Your task to perform on an android device: change keyboard looks Image 0: 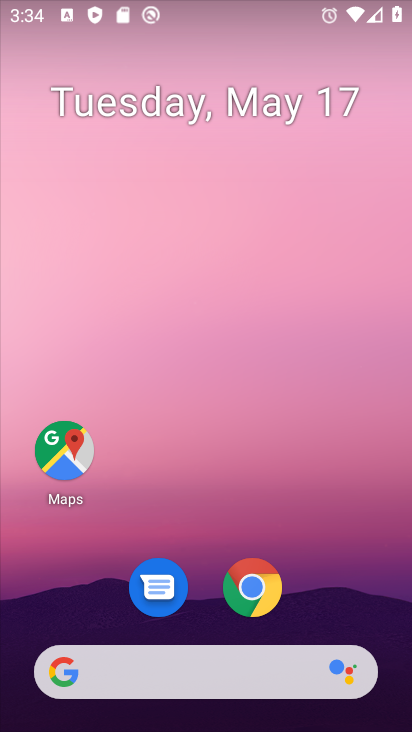
Step 0: drag from (308, 410) to (400, 197)
Your task to perform on an android device: change keyboard looks Image 1: 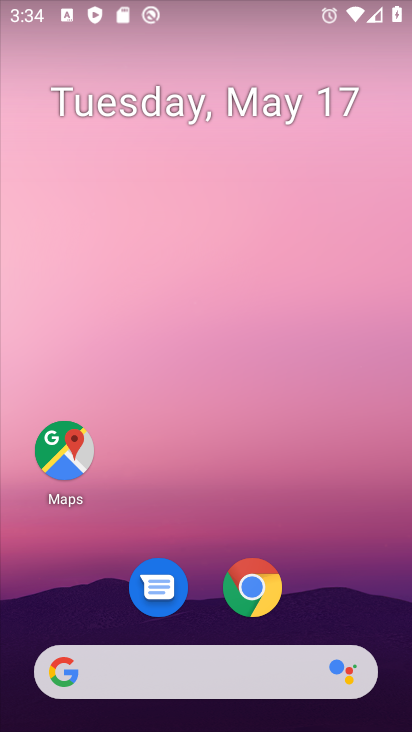
Step 1: drag from (201, 658) to (292, 255)
Your task to perform on an android device: change keyboard looks Image 2: 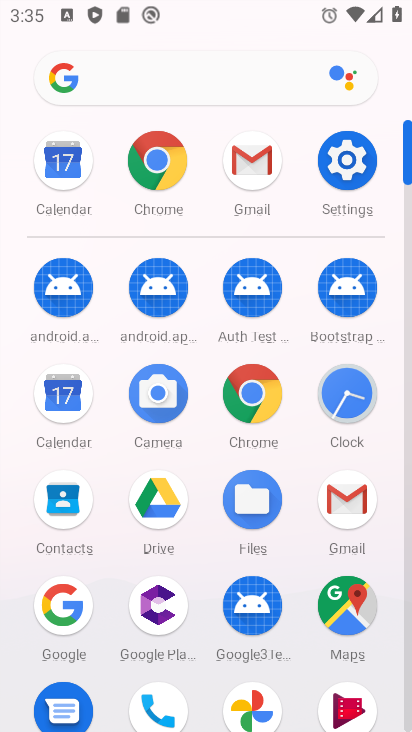
Step 2: click (349, 170)
Your task to perform on an android device: change keyboard looks Image 3: 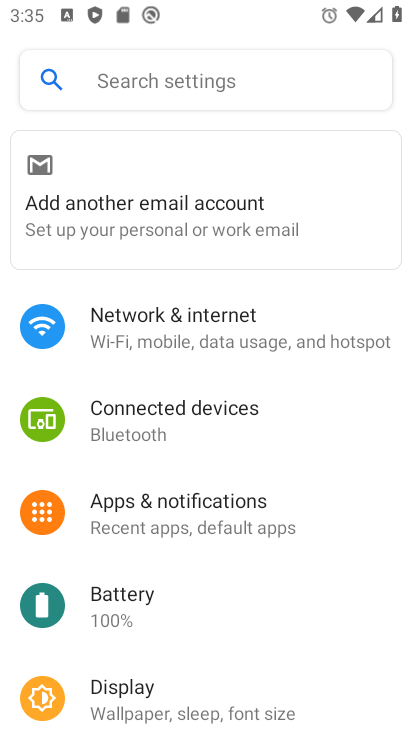
Step 3: drag from (179, 639) to (242, 330)
Your task to perform on an android device: change keyboard looks Image 4: 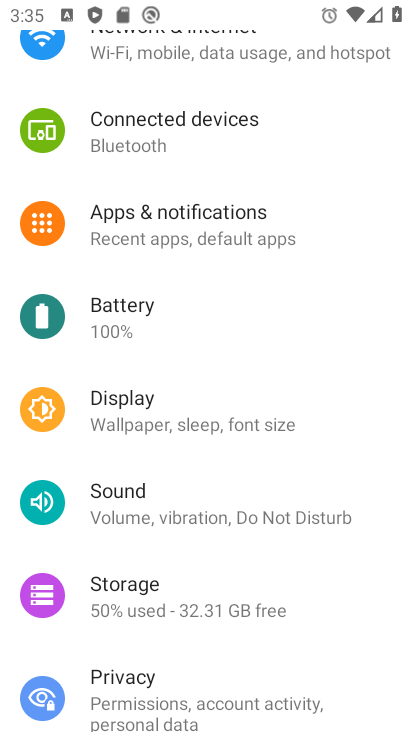
Step 4: drag from (239, 623) to (369, 113)
Your task to perform on an android device: change keyboard looks Image 5: 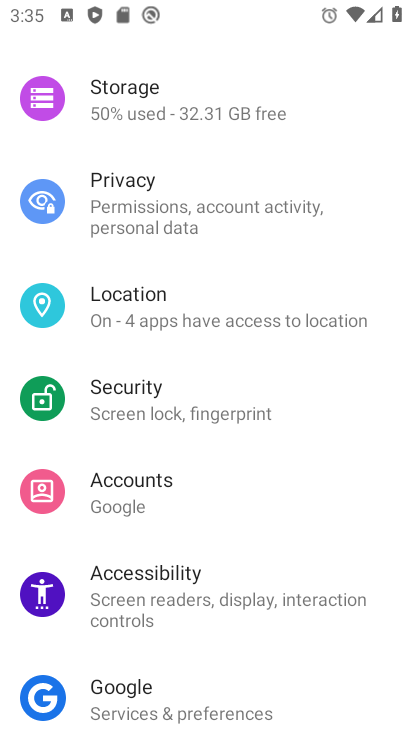
Step 5: drag from (253, 540) to (342, 76)
Your task to perform on an android device: change keyboard looks Image 6: 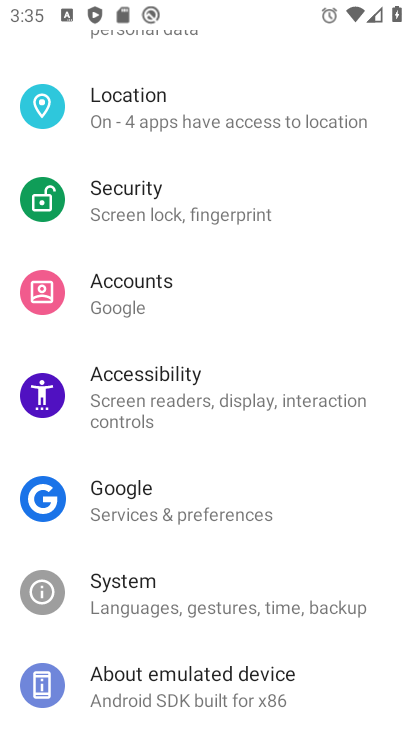
Step 6: drag from (192, 628) to (304, 100)
Your task to perform on an android device: change keyboard looks Image 7: 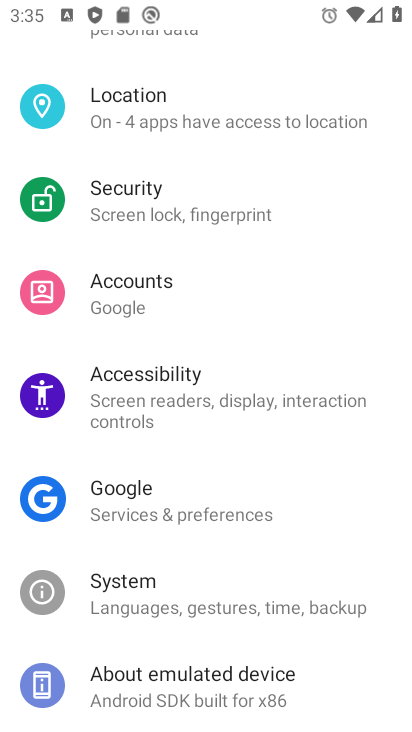
Step 7: click (192, 595)
Your task to perform on an android device: change keyboard looks Image 8: 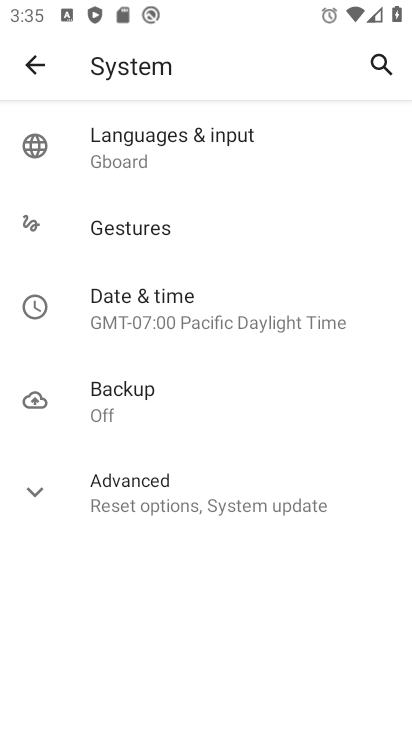
Step 8: click (205, 152)
Your task to perform on an android device: change keyboard looks Image 9: 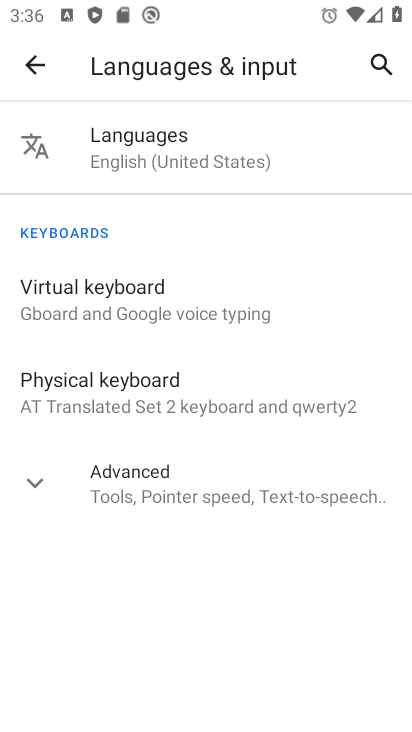
Step 9: click (122, 289)
Your task to perform on an android device: change keyboard looks Image 10: 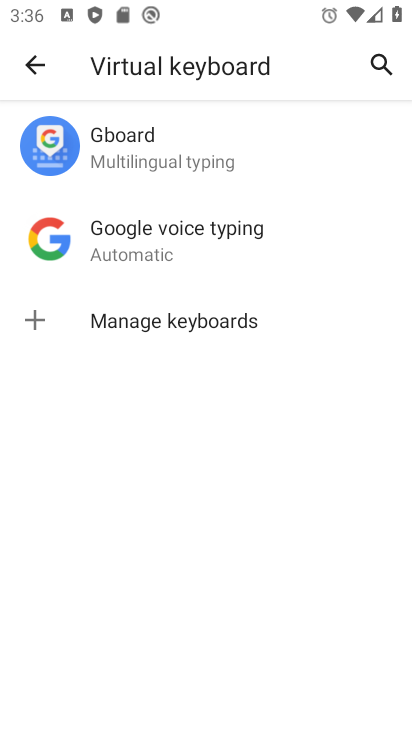
Step 10: click (200, 161)
Your task to perform on an android device: change keyboard looks Image 11: 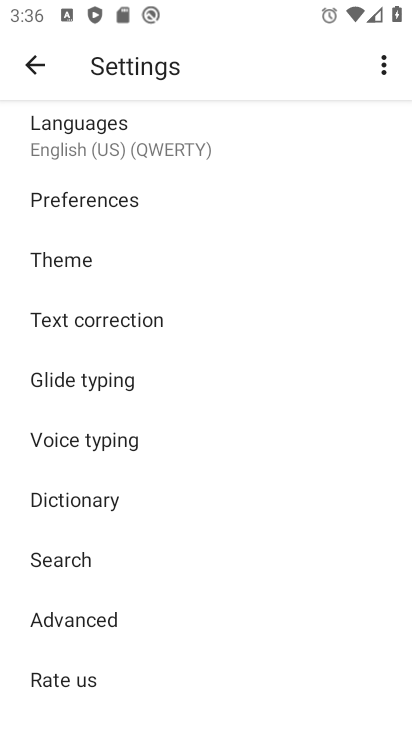
Step 11: click (113, 266)
Your task to perform on an android device: change keyboard looks Image 12: 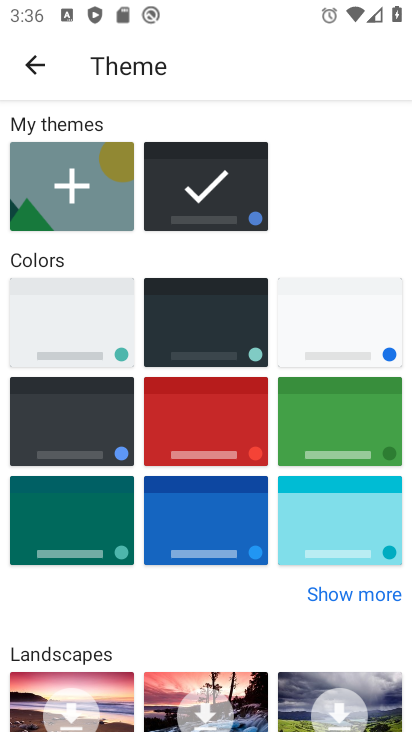
Step 12: click (205, 342)
Your task to perform on an android device: change keyboard looks Image 13: 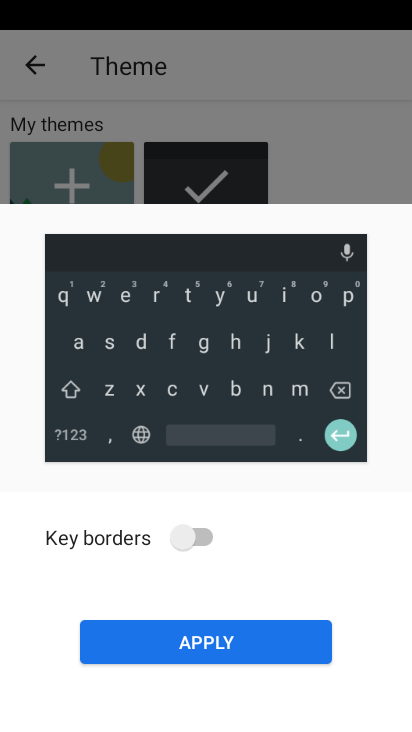
Step 13: click (242, 641)
Your task to perform on an android device: change keyboard looks Image 14: 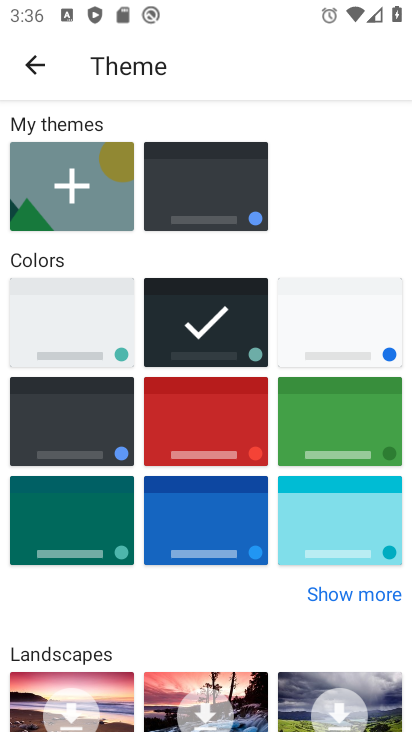
Step 14: task complete